Your task to perform on an android device: turn off priority inbox in the gmail app Image 0: 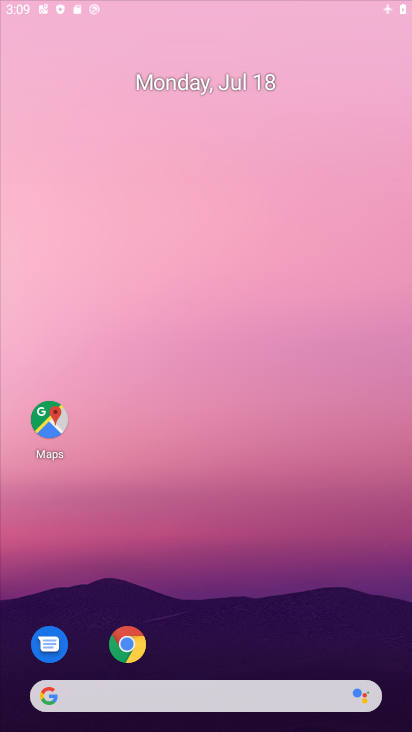
Step 0: click (307, 156)
Your task to perform on an android device: turn off priority inbox in the gmail app Image 1: 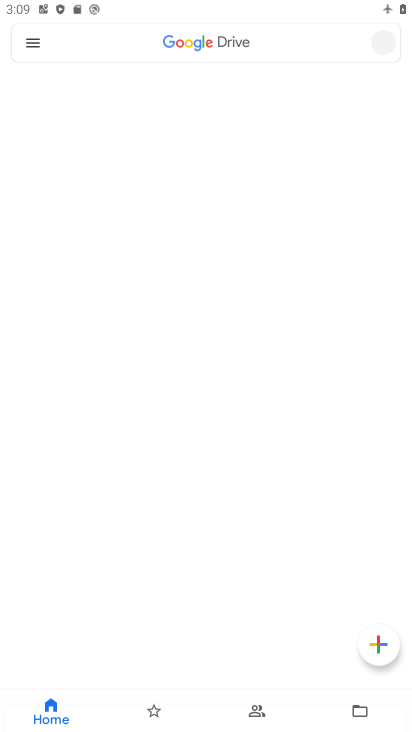
Step 1: drag from (338, 641) to (280, 62)
Your task to perform on an android device: turn off priority inbox in the gmail app Image 2: 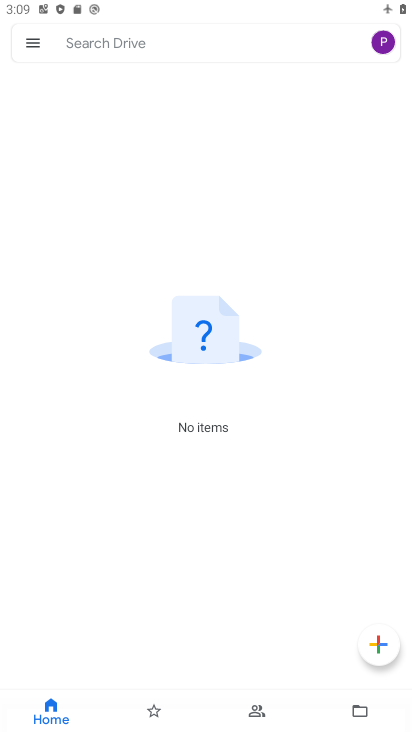
Step 2: press back button
Your task to perform on an android device: turn off priority inbox in the gmail app Image 3: 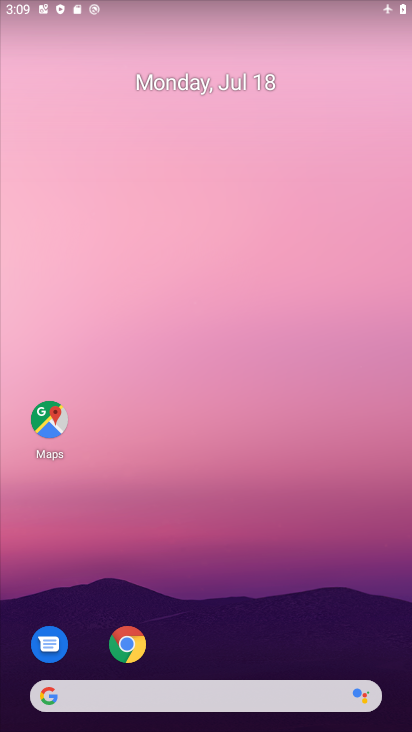
Step 3: drag from (386, 653) to (238, 12)
Your task to perform on an android device: turn off priority inbox in the gmail app Image 4: 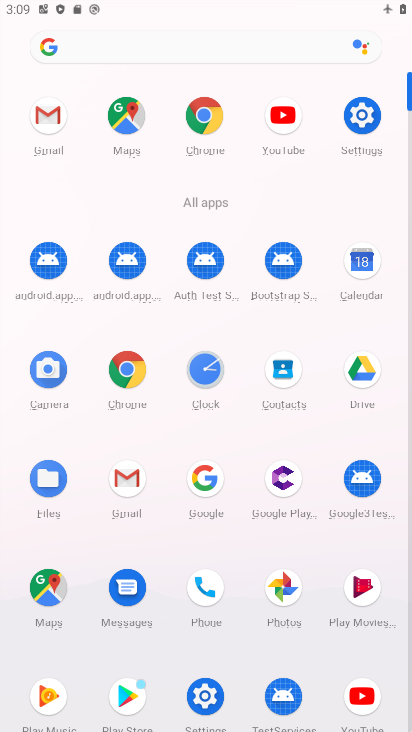
Step 4: click (126, 481)
Your task to perform on an android device: turn off priority inbox in the gmail app Image 5: 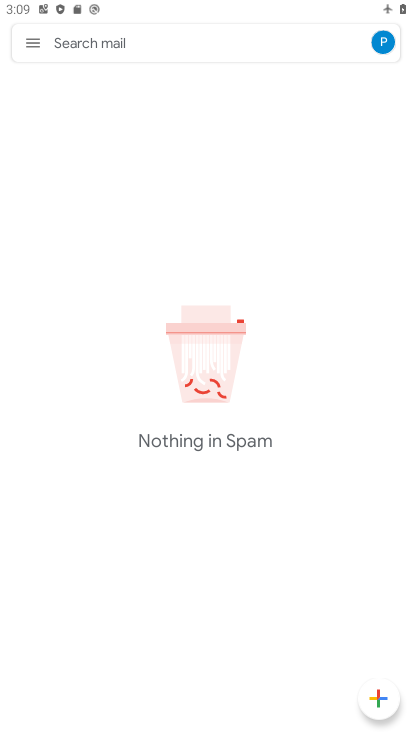
Step 5: click (29, 49)
Your task to perform on an android device: turn off priority inbox in the gmail app Image 6: 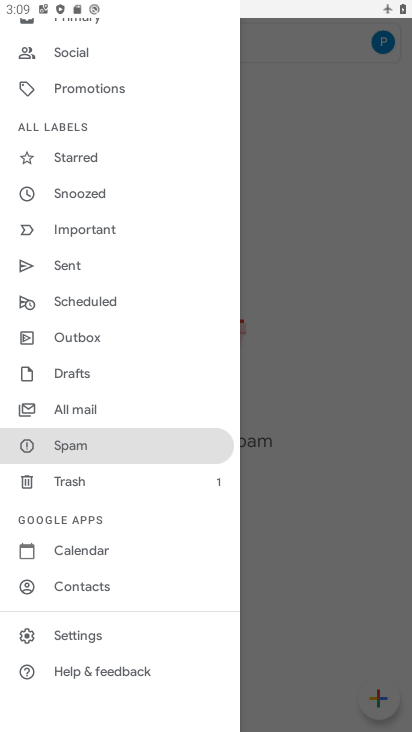
Step 6: click (89, 641)
Your task to perform on an android device: turn off priority inbox in the gmail app Image 7: 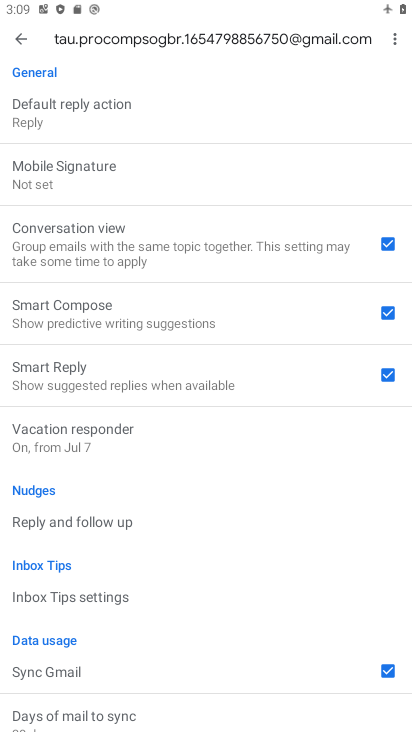
Step 7: drag from (275, 158) to (252, 401)
Your task to perform on an android device: turn off priority inbox in the gmail app Image 8: 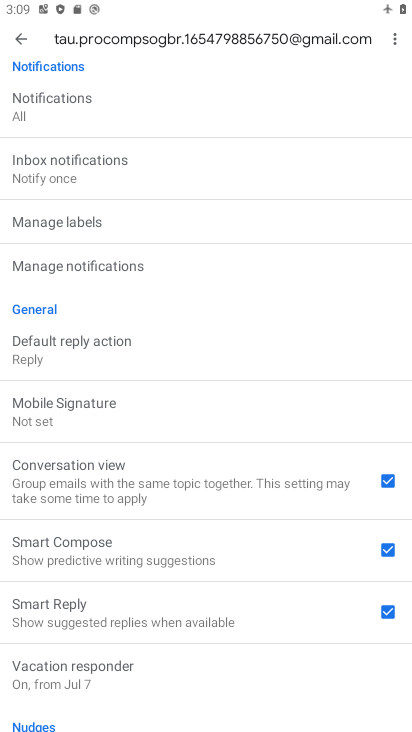
Step 8: drag from (243, 128) to (263, 453)
Your task to perform on an android device: turn off priority inbox in the gmail app Image 9: 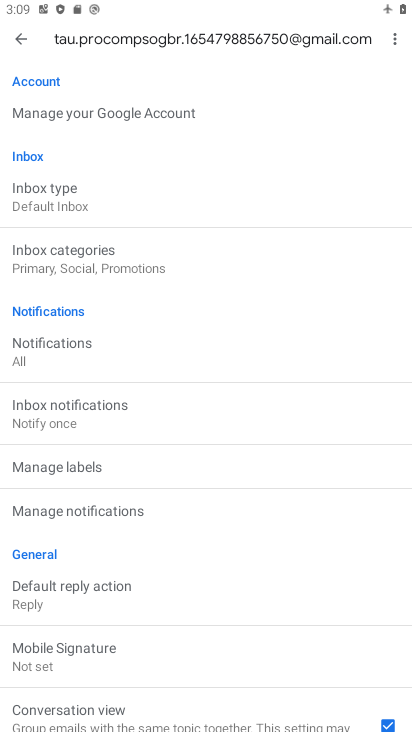
Step 9: click (47, 195)
Your task to perform on an android device: turn off priority inbox in the gmail app Image 10: 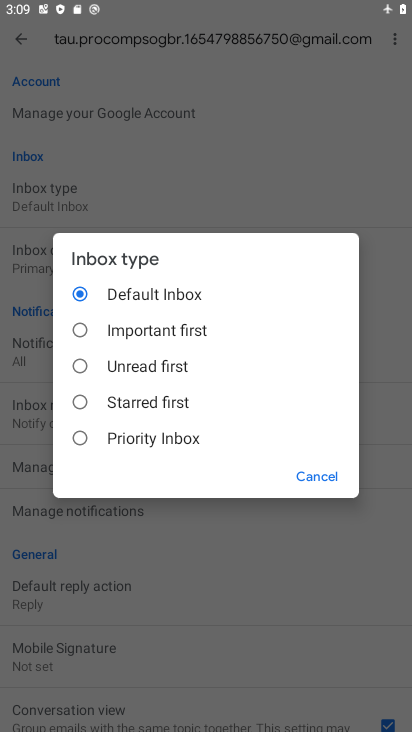
Step 10: task complete